Your task to perform on an android device: Open ESPN.com Image 0: 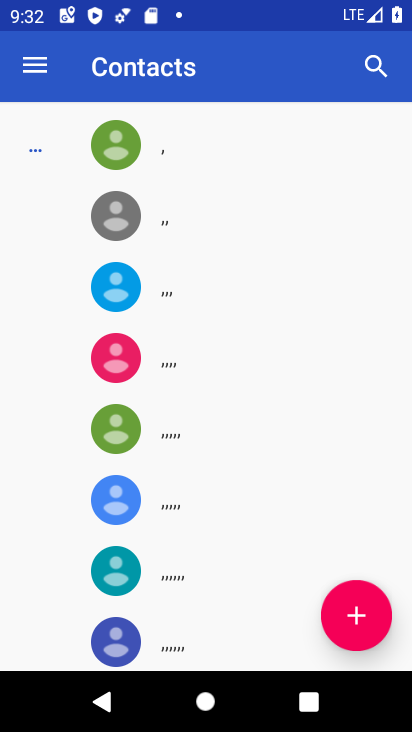
Step 0: press home button
Your task to perform on an android device: Open ESPN.com Image 1: 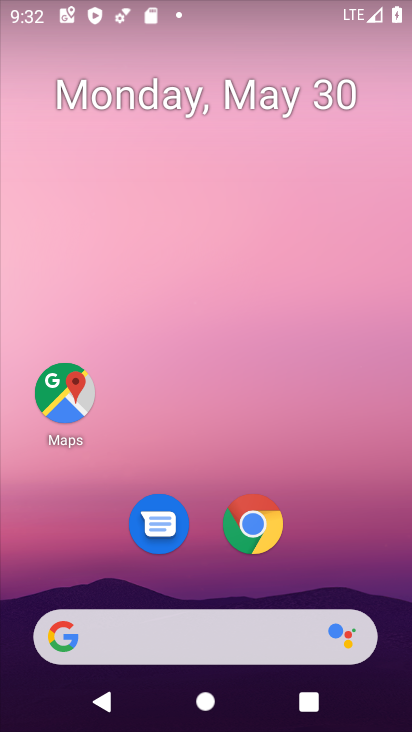
Step 1: click (273, 649)
Your task to perform on an android device: Open ESPN.com Image 2: 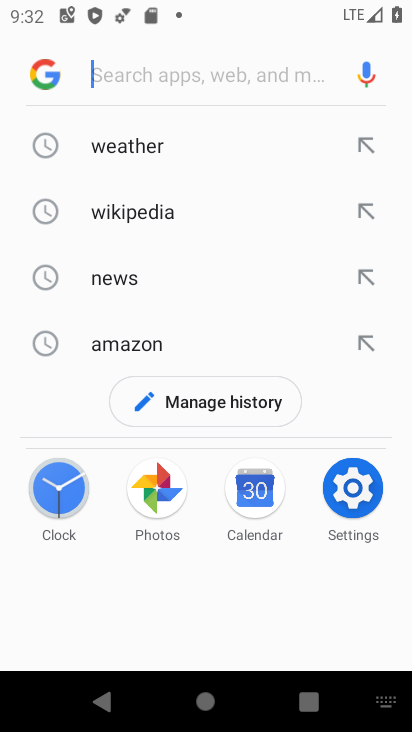
Step 2: type "espn.com"
Your task to perform on an android device: Open ESPN.com Image 3: 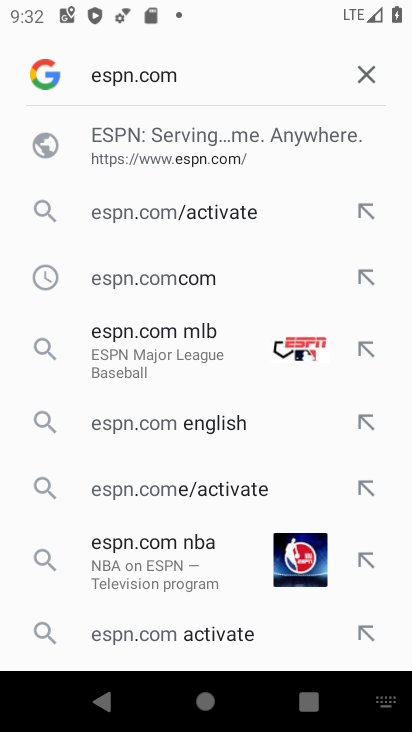
Step 3: click (189, 140)
Your task to perform on an android device: Open ESPN.com Image 4: 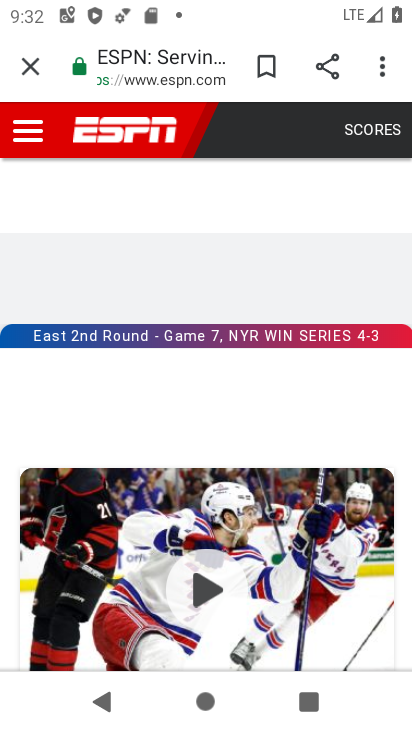
Step 4: task complete